Your task to perform on an android device: check battery use Image 0: 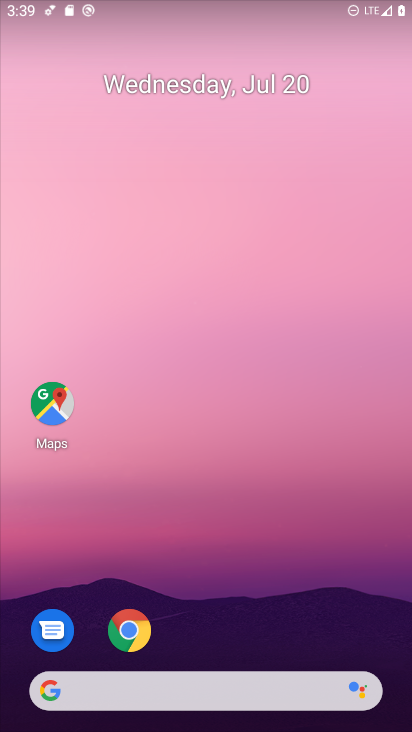
Step 0: drag from (217, 627) to (250, 137)
Your task to perform on an android device: check battery use Image 1: 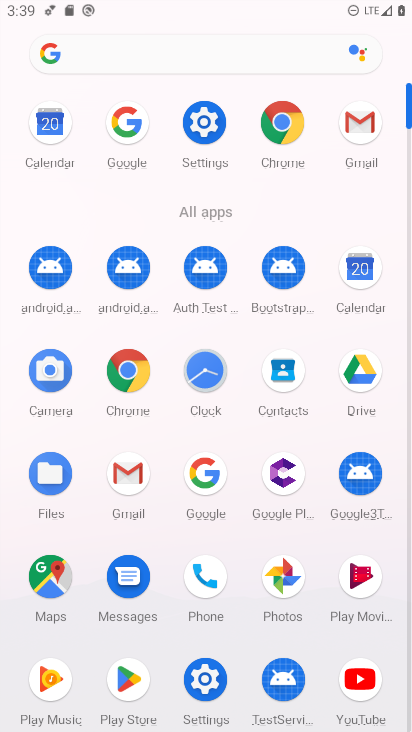
Step 1: click (196, 114)
Your task to perform on an android device: check battery use Image 2: 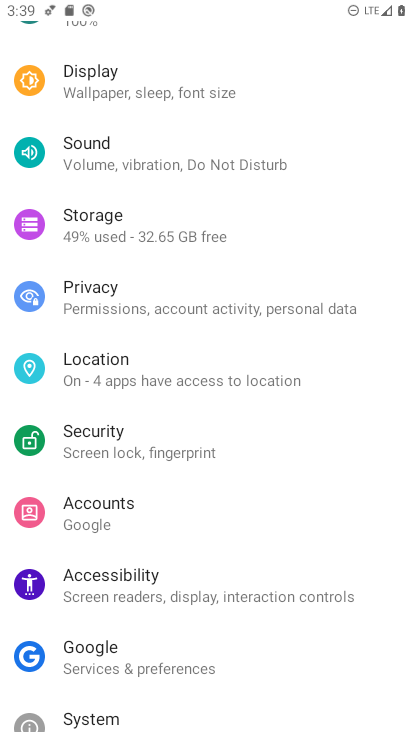
Step 2: drag from (119, 135) to (135, 509)
Your task to perform on an android device: check battery use Image 3: 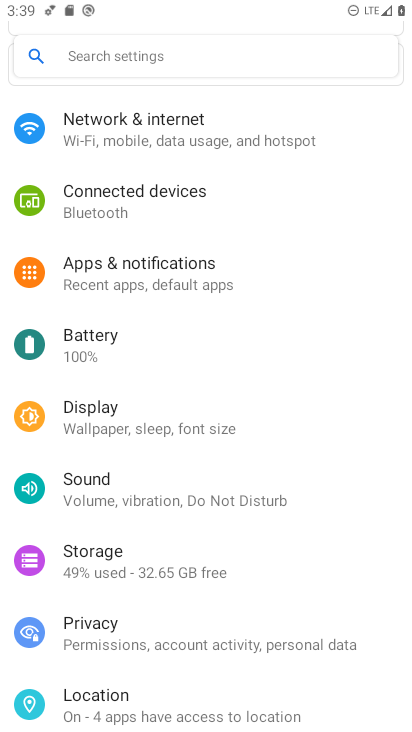
Step 3: click (98, 346)
Your task to perform on an android device: check battery use Image 4: 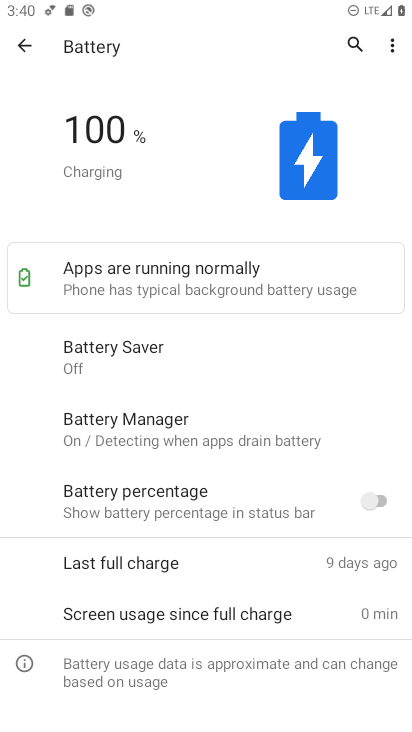
Step 4: click (394, 34)
Your task to perform on an android device: check battery use Image 5: 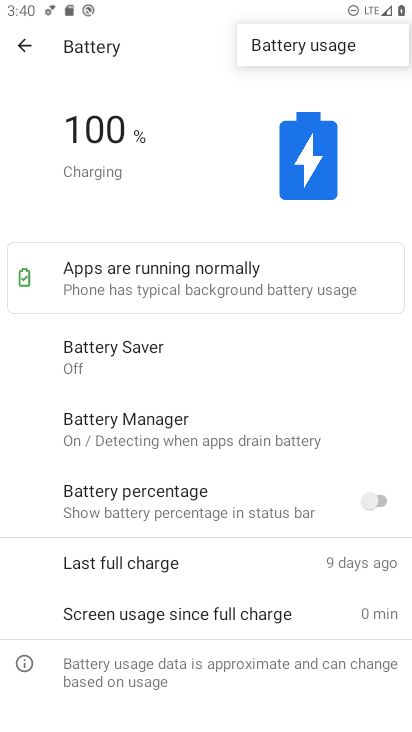
Step 5: click (329, 44)
Your task to perform on an android device: check battery use Image 6: 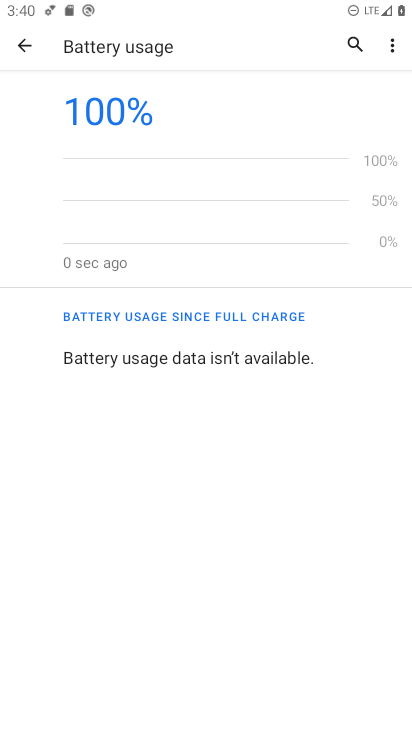
Step 6: task complete